Your task to perform on an android device: Search for pizza restaurants on Maps Image 0: 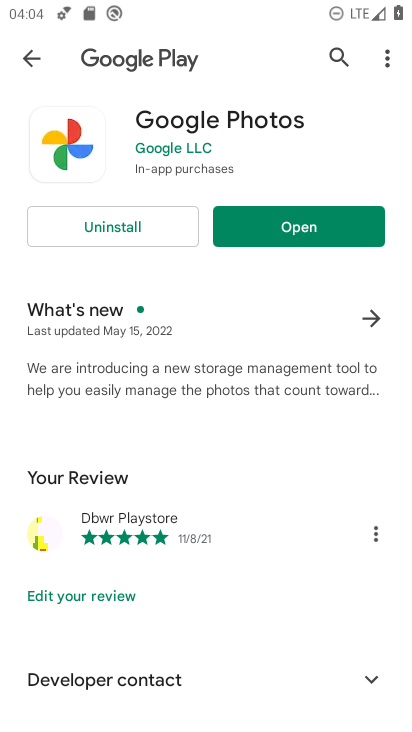
Step 0: press home button
Your task to perform on an android device: Search for pizza restaurants on Maps Image 1: 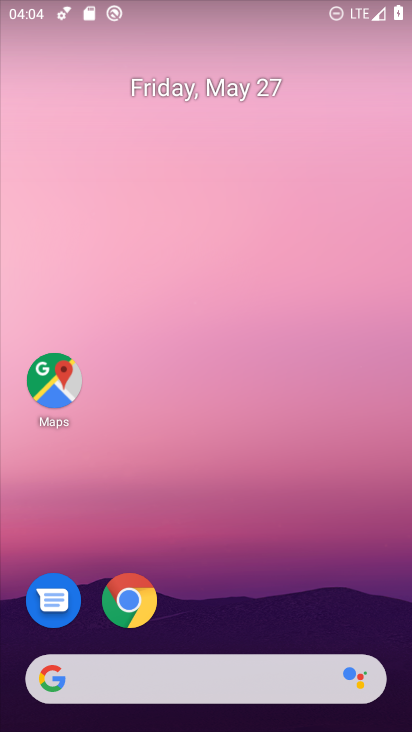
Step 1: drag from (196, 720) to (180, 139)
Your task to perform on an android device: Search for pizza restaurants on Maps Image 2: 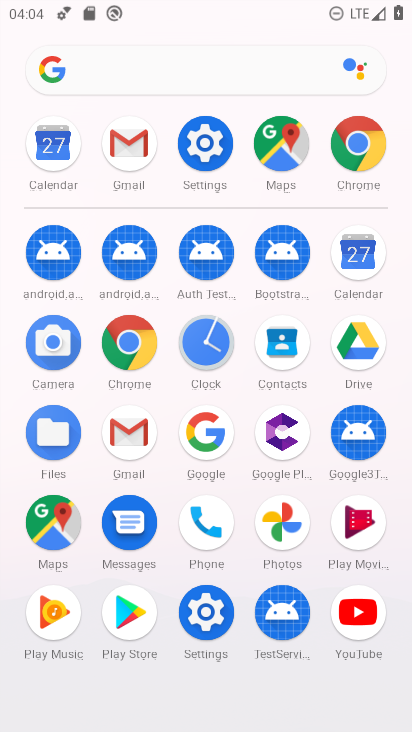
Step 2: click (47, 518)
Your task to perform on an android device: Search for pizza restaurants on Maps Image 3: 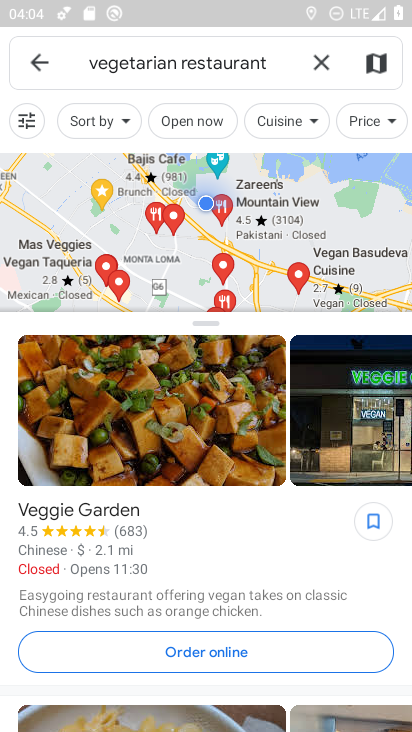
Step 3: click (320, 61)
Your task to perform on an android device: Search for pizza restaurants on Maps Image 4: 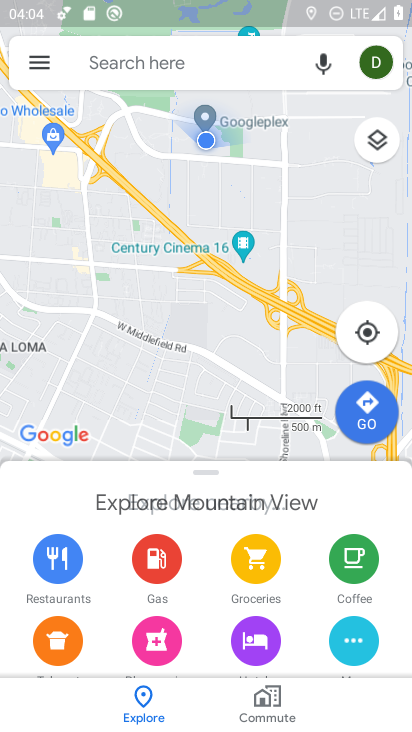
Step 4: click (239, 63)
Your task to perform on an android device: Search for pizza restaurants on Maps Image 5: 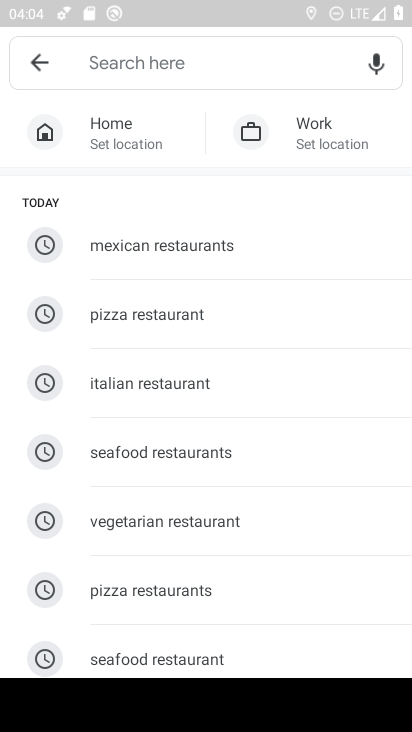
Step 5: type "pizza restaurants"
Your task to perform on an android device: Search for pizza restaurants on Maps Image 6: 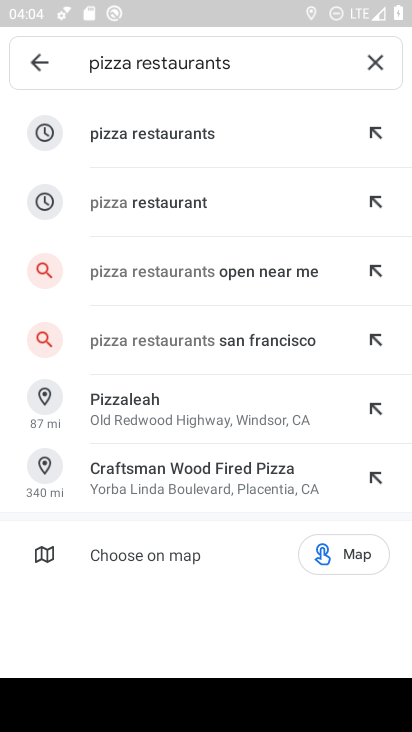
Step 6: click (171, 133)
Your task to perform on an android device: Search for pizza restaurants on Maps Image 7: 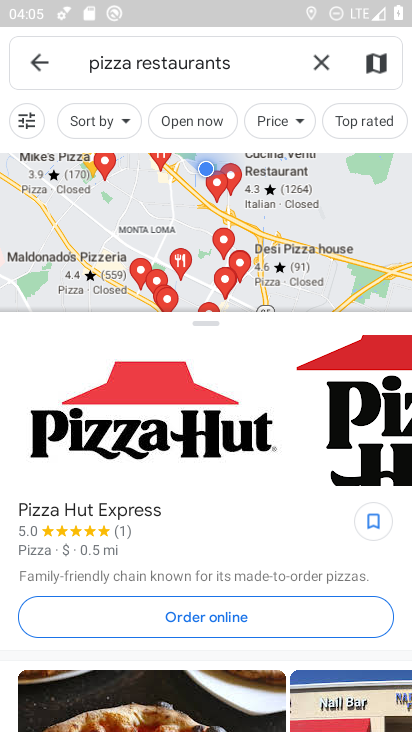
Step 7: task complete